Your task to perform on an android device: turn on wifi Image 0: 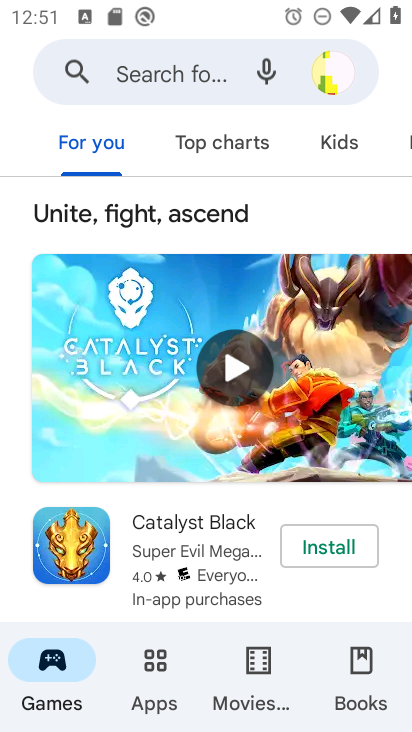
Step 0: press home button
Your task to perform on an android device: turn on wifi Image 1: 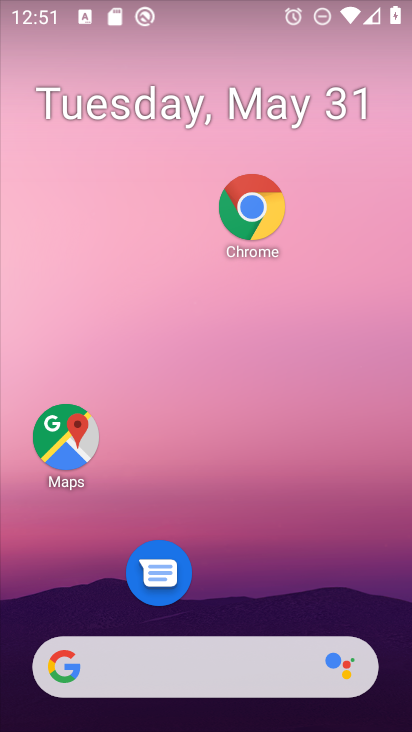
Step 1: drag from (263, 470) to (304, 138)
Your task to perform on an android device: turn on wifi Image 2: 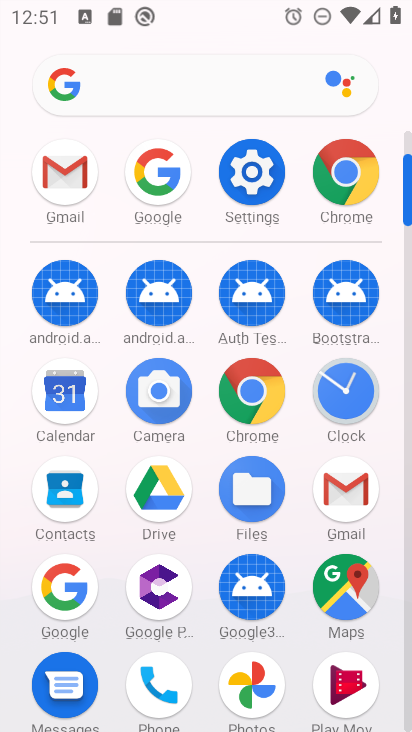
Step 2: click (259, 182)
Your task to perform on an android device: turn on wifi Image 3: 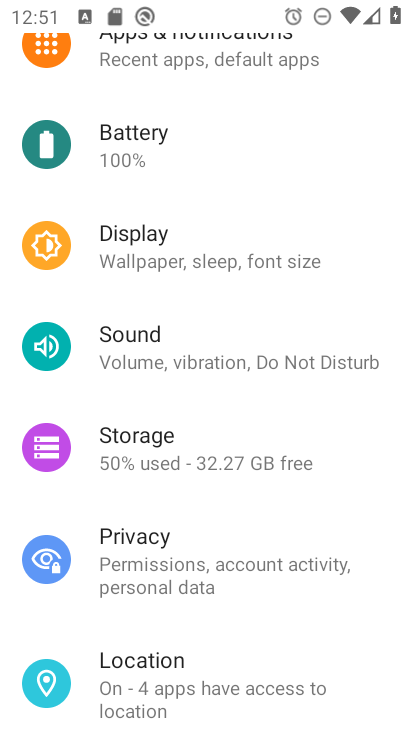
Step 3: drag from (232, 364) to (215, 547)
Your task to perform on an android device: turn on wifi Image 4: 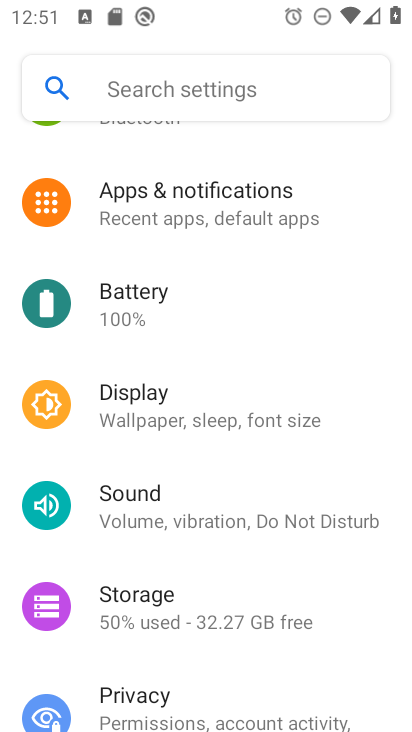
Step 4: drag from (192, 250) to (205, 528)
Your task to perform on an android device: turn on wifi Image 5: 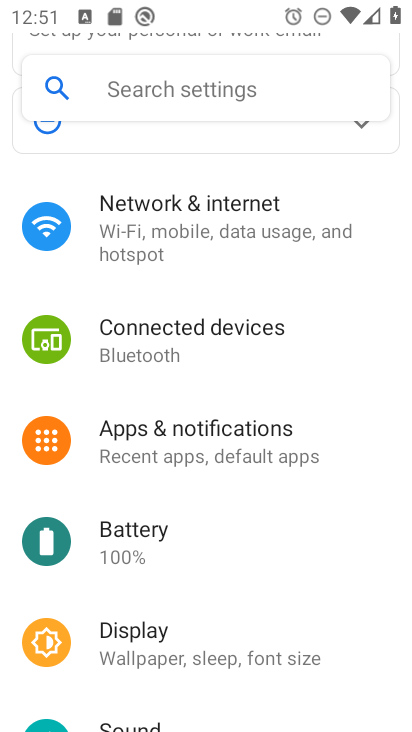
Step 5: drag from (177, 313) to (181, 522)
Your task to perform on an android device: turn on wifi Image 6: 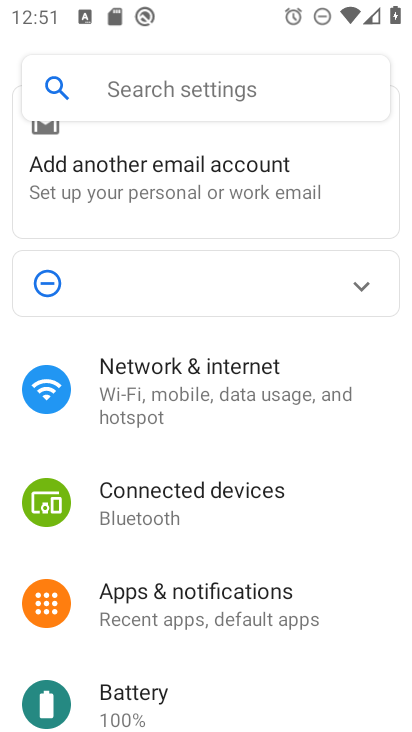
Step 6: click (191, 393)
Your task to perform on an android device: turn on wifi Image 7: 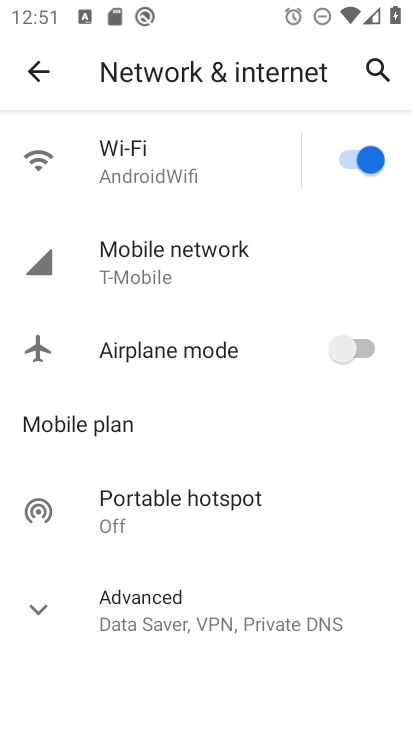
Step 7: task complete